Your task to perform on an android device: toggle pop-ups in chrome Image 0: 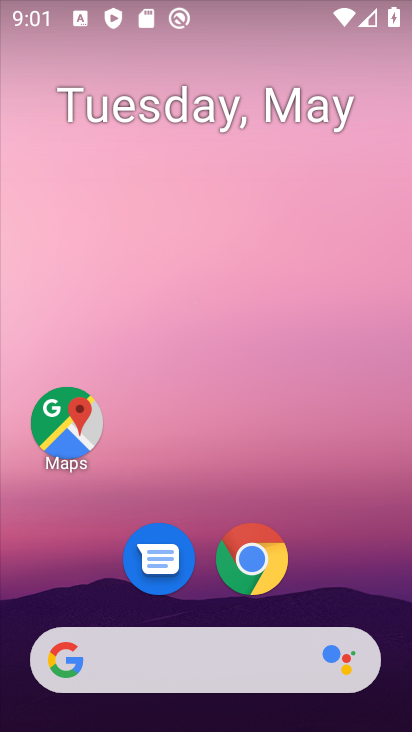
Step 0: drag from (250, 637) to (244, 334)
Your task to perform on an android device: toggle pop-ups in chrome Image 1: 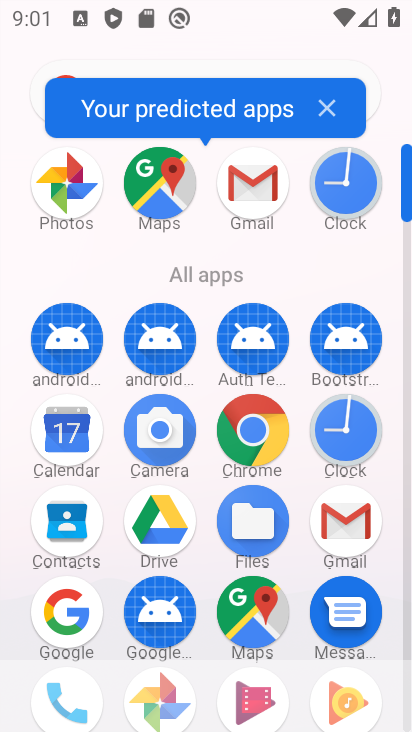
Step 1: click (260, 445)
Your task to perform on an android device: toggle pop-ups in chrome Image 2: 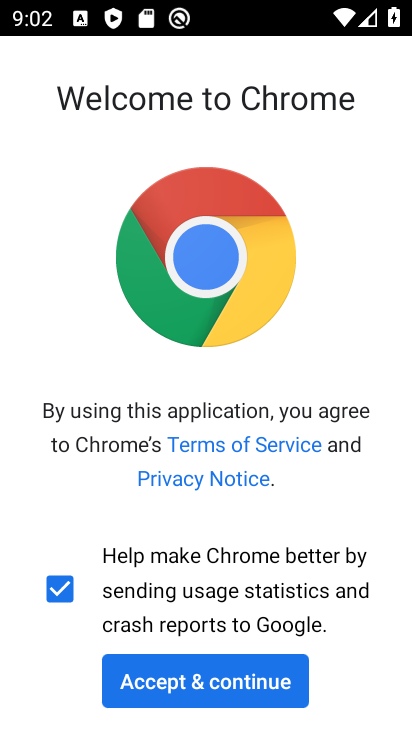
Step 2: click (221, 688)
Your task to perform on an android device: toggle pop-ups in chrome Image 3: 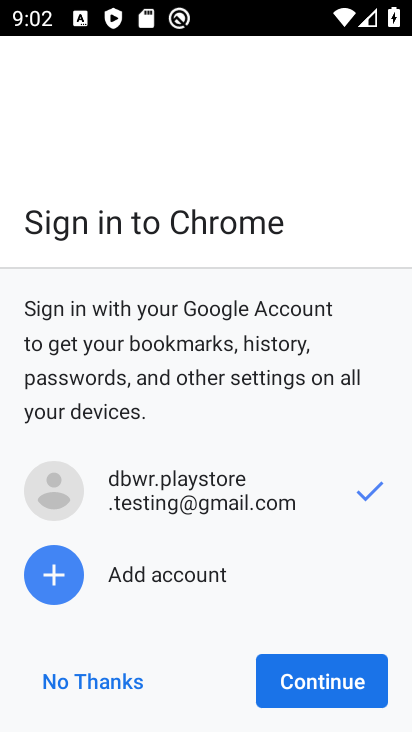
Step 3: click (290, 693)
Your task to perform on an android device: toggle pop-ups in chrome Image 4: 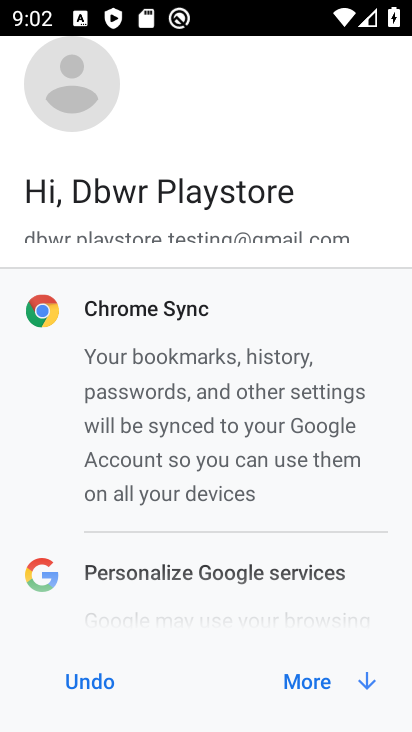
Step 4: click (288, 693)
Your task to perform on an android device: toggle pop-ups in chrome Image 5: 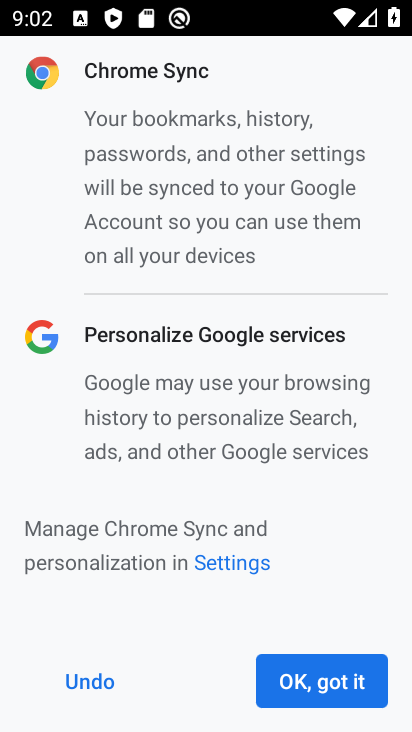
Step 5: click (288, 693)
Your task to perform on an android device: toggle pop-ups in chrome Image 6: 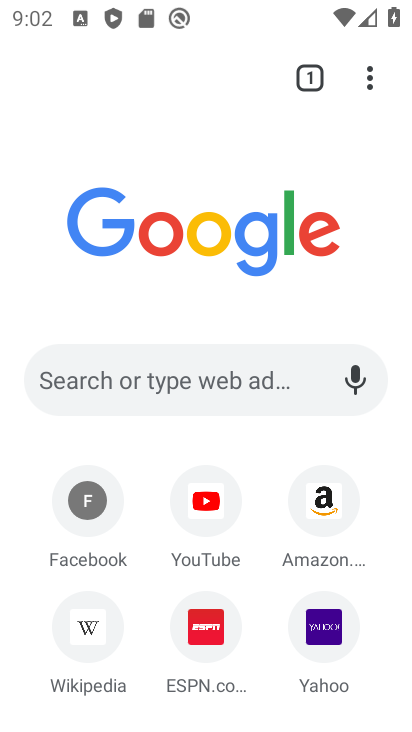
Step 6: click (364, 91)
Your task to perform on an android device: toggle pop-ups in chrome Image 7: 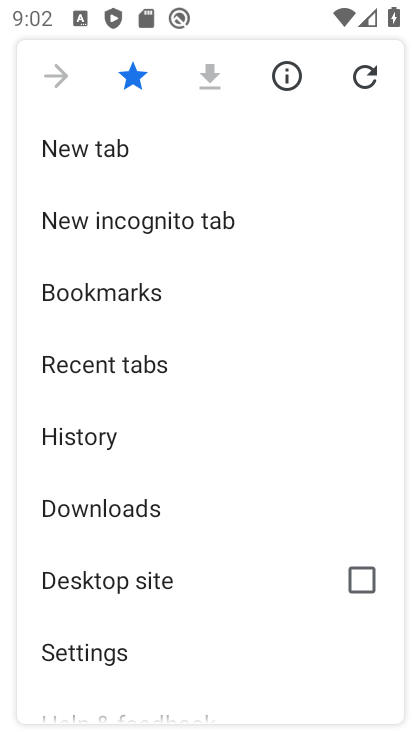
Step 7: click (118, 661)
Your task to perform on an android device: toggle pop-ups in chrome Image 8: 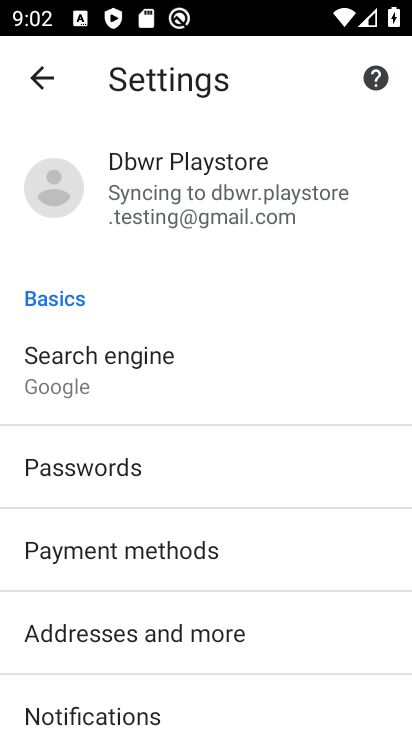
Step 8: drag from (179, 615) to (199, 150)
Your task to perform on an android device: toggle pop-ups in chrome Image 9: 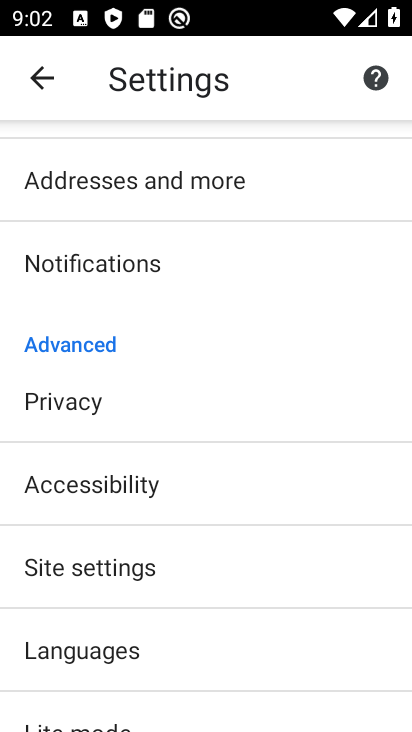
Step 9: drag from (136, 636) to (163, 341)
Your task to perform on an android device: toggle pop-ups in chrome Image 10: 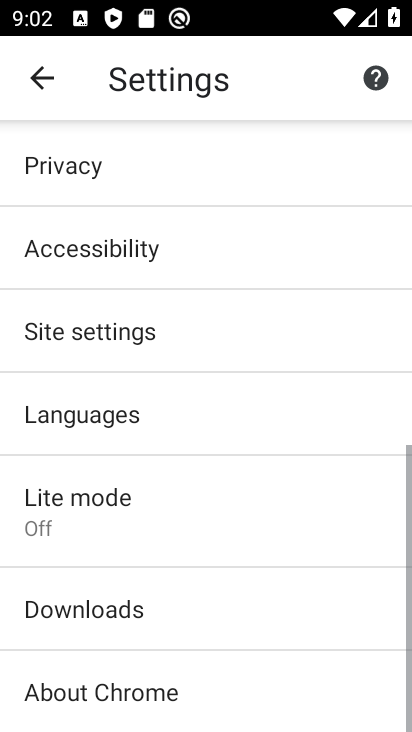
Step 10: click (156, 347)
Your task to perform on an android device: toggle pop-ups in chrome Image 11: 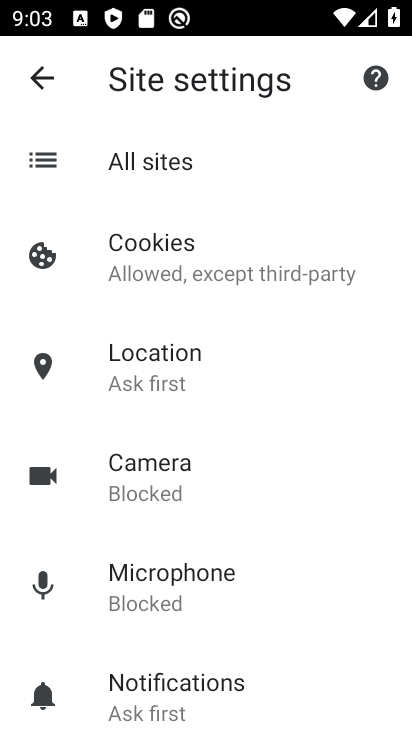
Step 11: drag from (186, 650) to (183, 360)
Your task to perform on an android device: toggle pop-ups in chrome Image 12: 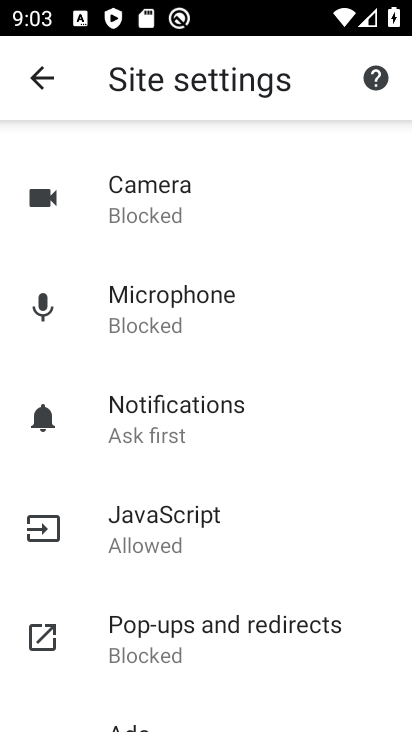
Step 12: click (213, 634)
Your task to perform on an android device: toggle pop-ups in chrome Image 13: 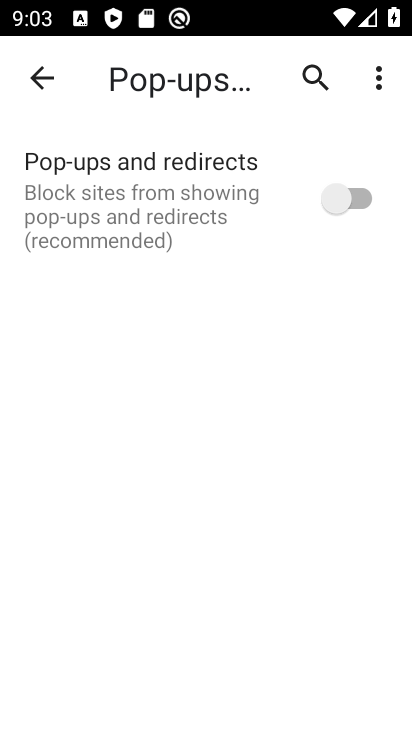
Step 13: click (362, 217)
Your task to perform on an android device: toggle pop-ups in chrome Image 14: 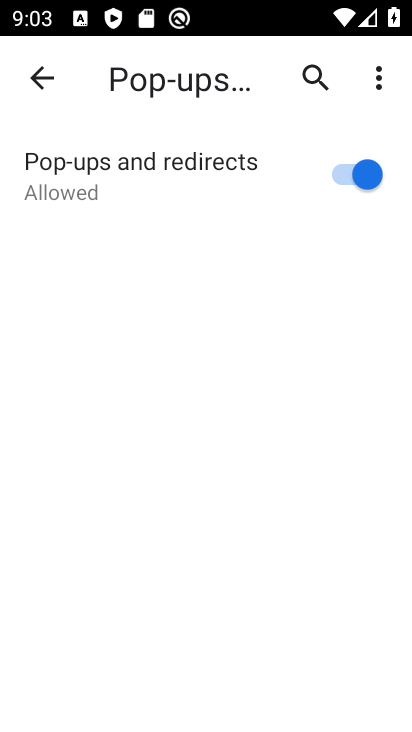
Step 14: task complete